Your task to perform on an android device: open a bookmark in the chrome app Image 0: 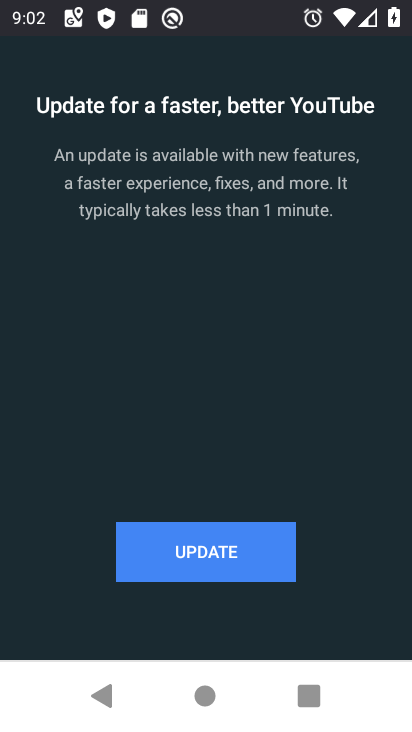
Step 0: press home button
Your task to perform on an android device: open a bookmark in the chrome app Image 1: 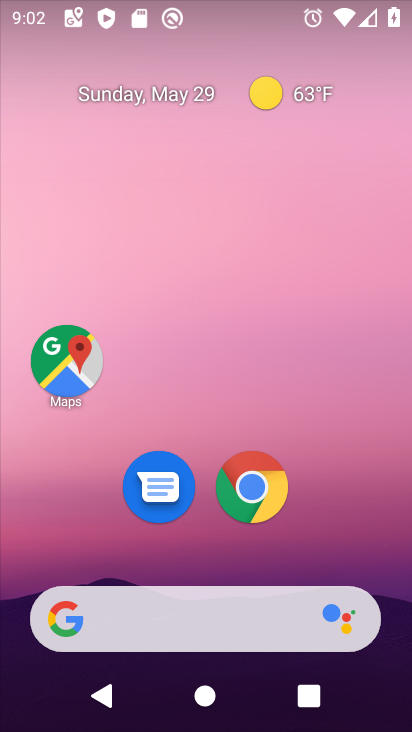
Step 1: drag from (213, 560) to (301, 22)
Your task to perform on an android device: open a bookmark in the chrome app Image 2: 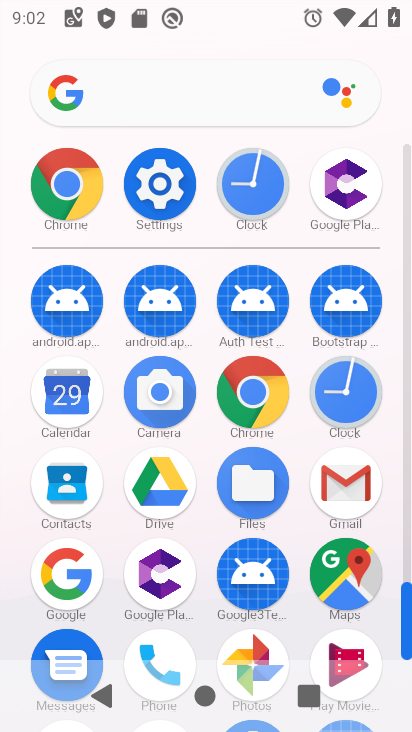
Step 2: click (251, 402)
Your task to perform on an android device: open a bookmark in the chrome app Image 3: 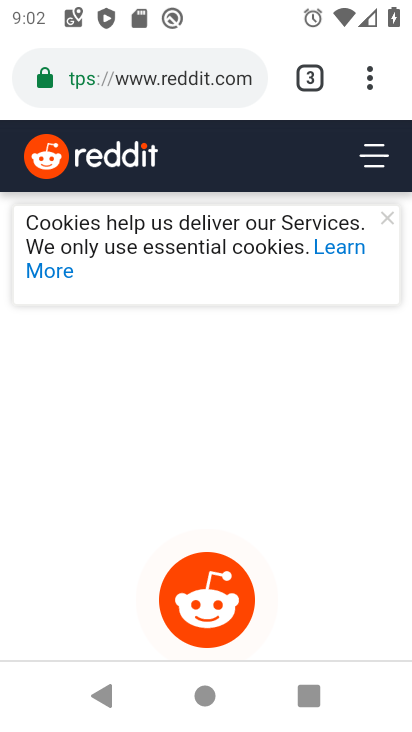
Step 3: click (365, 81)
Your task to perform on an android device: open a bookmark in the chrome app Image 4: 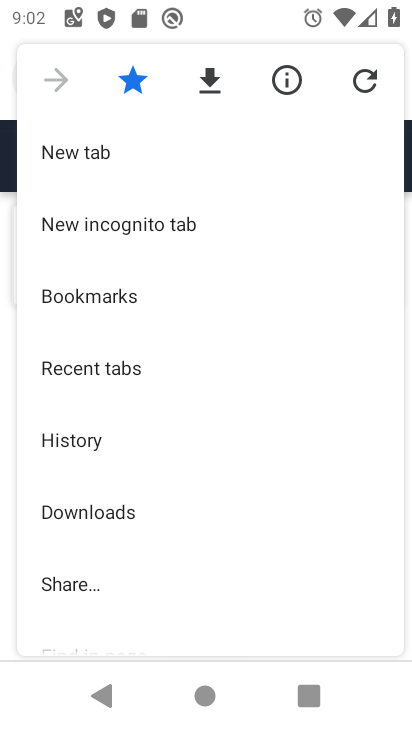
Step 4: click (106, 298)
Your task to perform on an android device: open a bookmark in the chrome app Image 5: 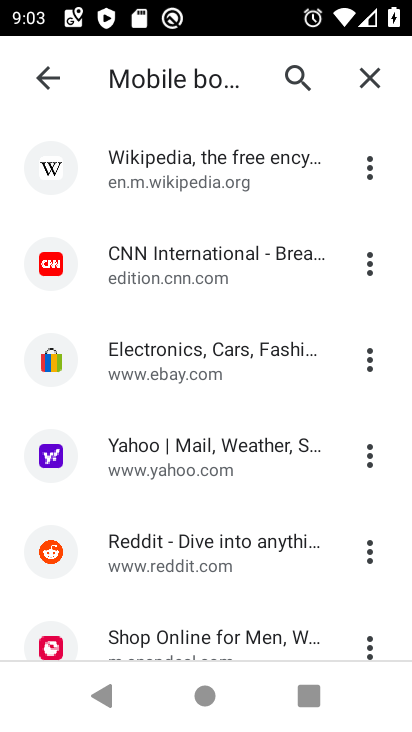
Step 5: click (215, 379)
Your task to perform on an android device: open a bookmark in the chrome app Image 6: 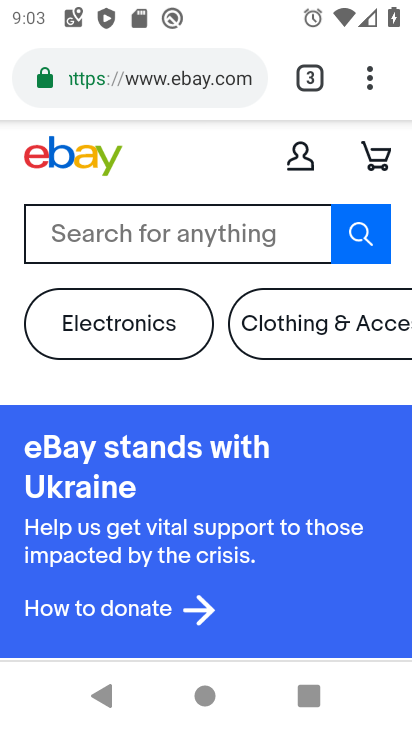
Step 6: task complete